Your task to perform on an android device: Search for "acer predator" on ebay, select the first entry, add it to the cart, then select checkout. Image 0: 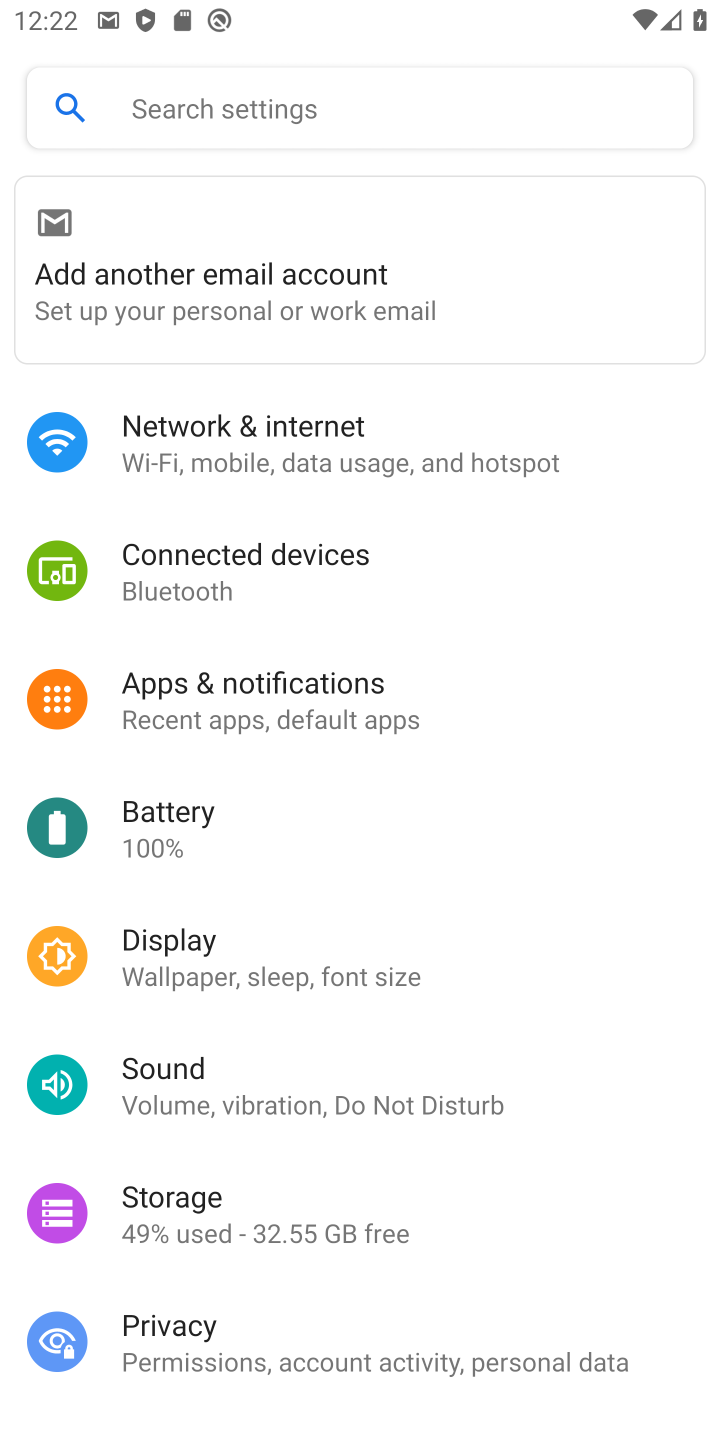
Step 0: press home button
Your task to perform on an android device: Search for "acer predator" on ebay, select the first entry, add it to the cart, then select checkout. Image 1: 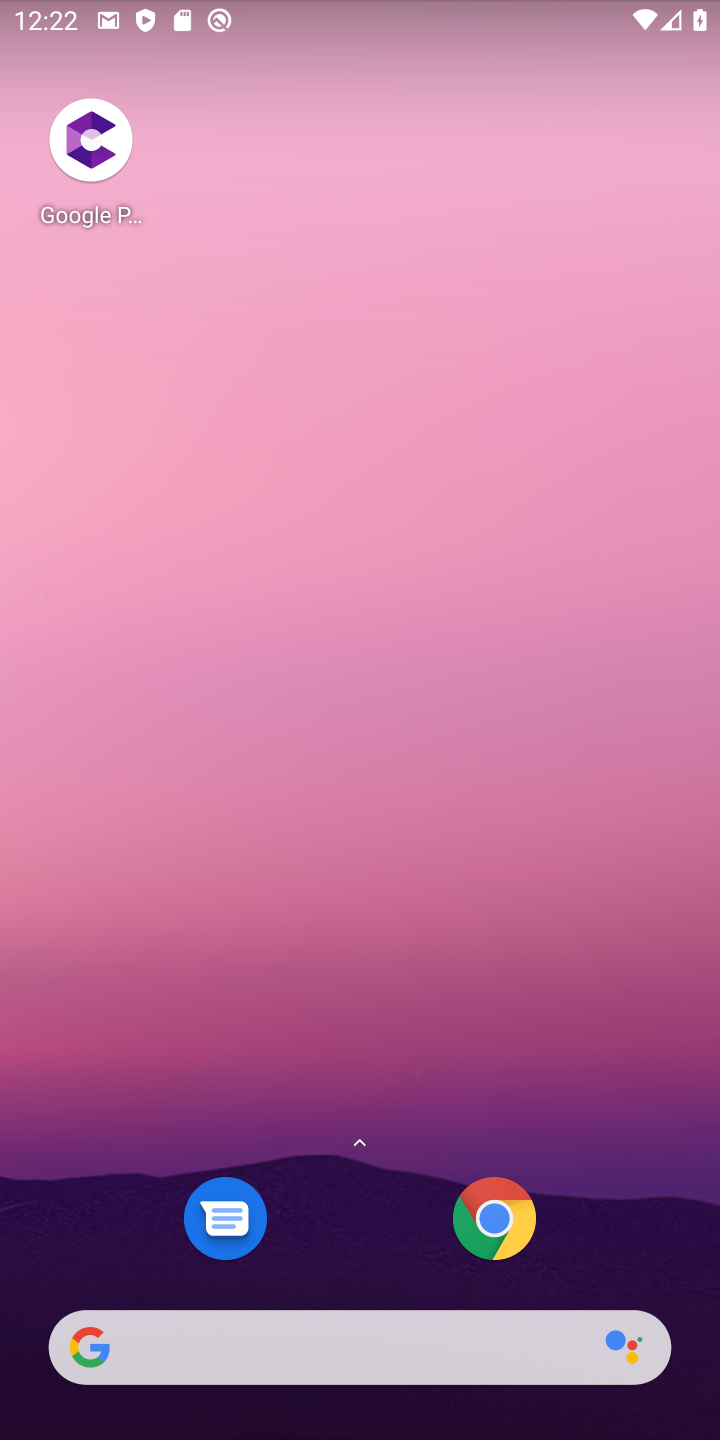
Step 1: drag from (361, 1245) to (364, 155)
Your task to perform on an android device: Search for "acer predator" on ebay, select the first entry, add it to the cart, then select checkout. Image 2: 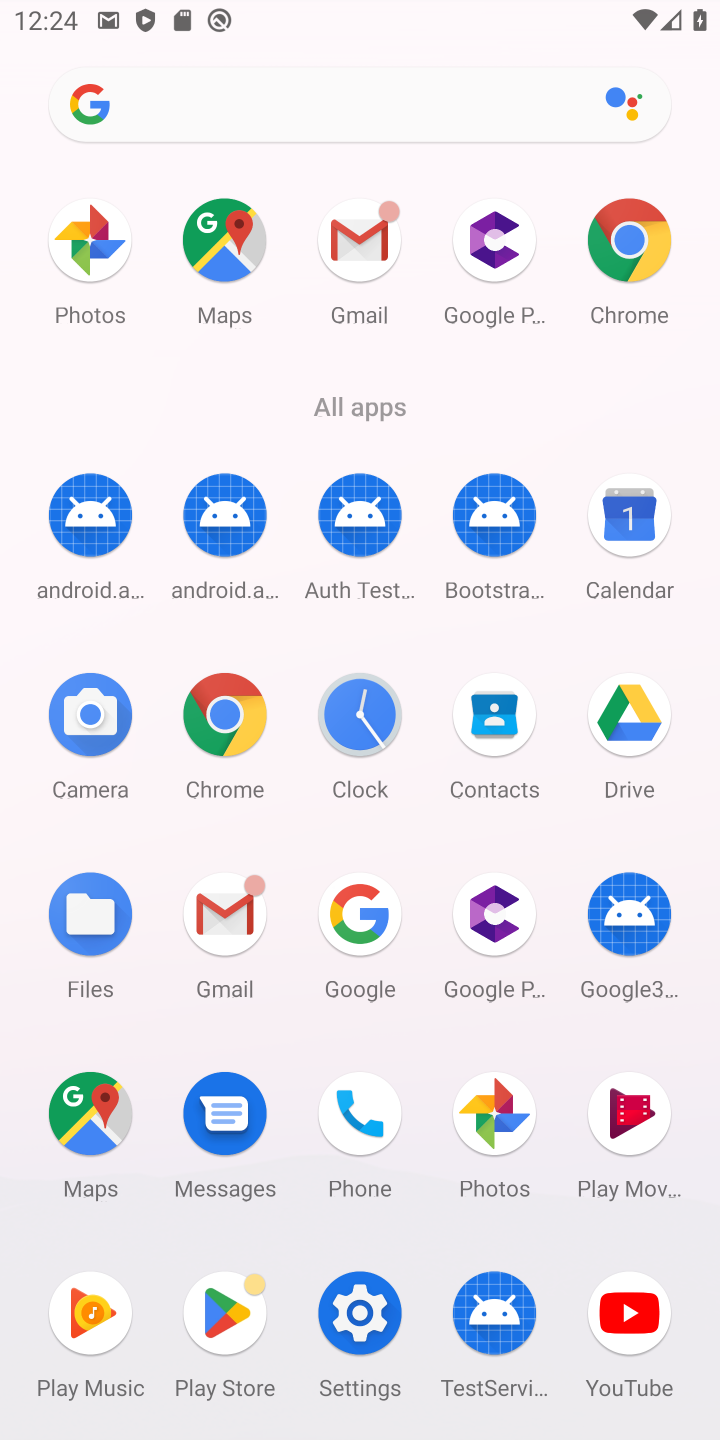
Step 2: click (200, 703)
Your task to perform on an android device: Search for "acer predator" on ebay, select the first entry, add it to the cart, then select checkout. Image 3: 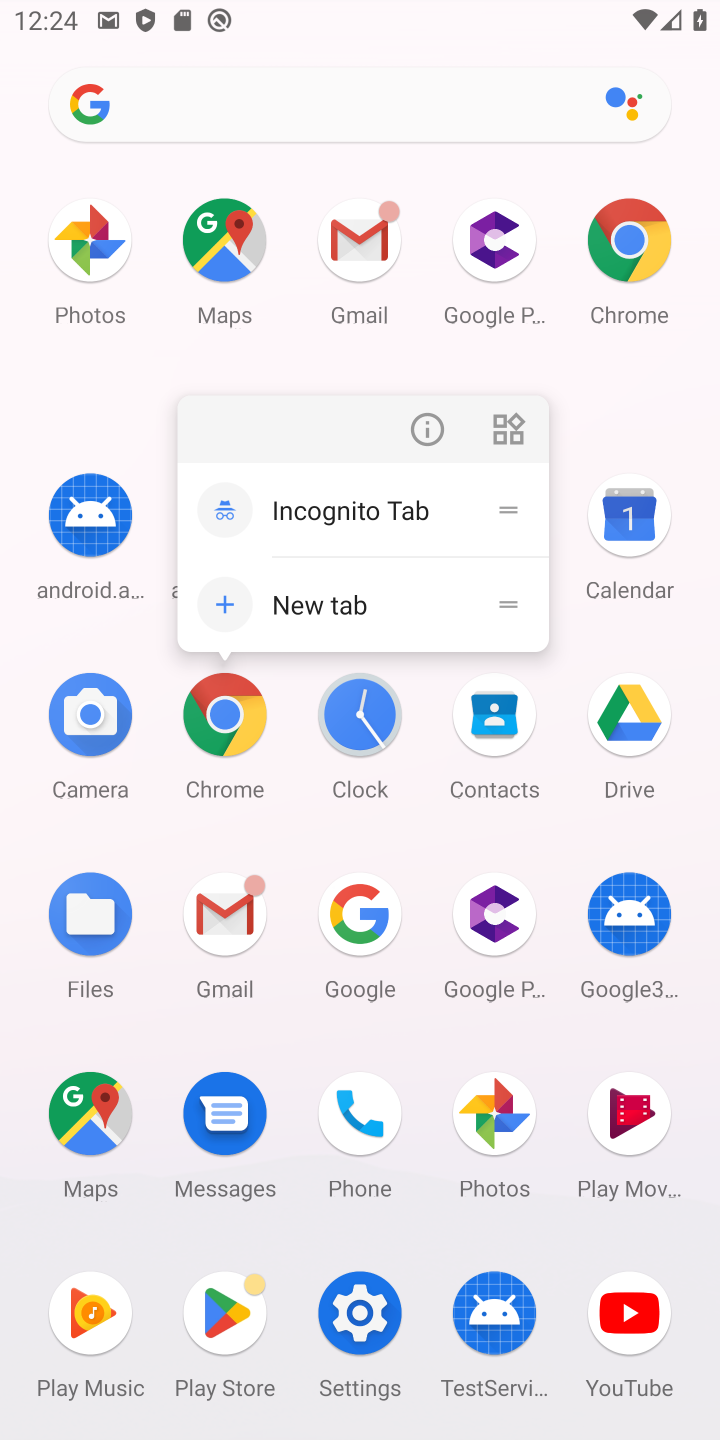
Step 3: click (221, 718)
Your task to perform on an android device: Search for "acer predator" on ebay, select the first entry, add it to the cart, then select checkout. Image 4: 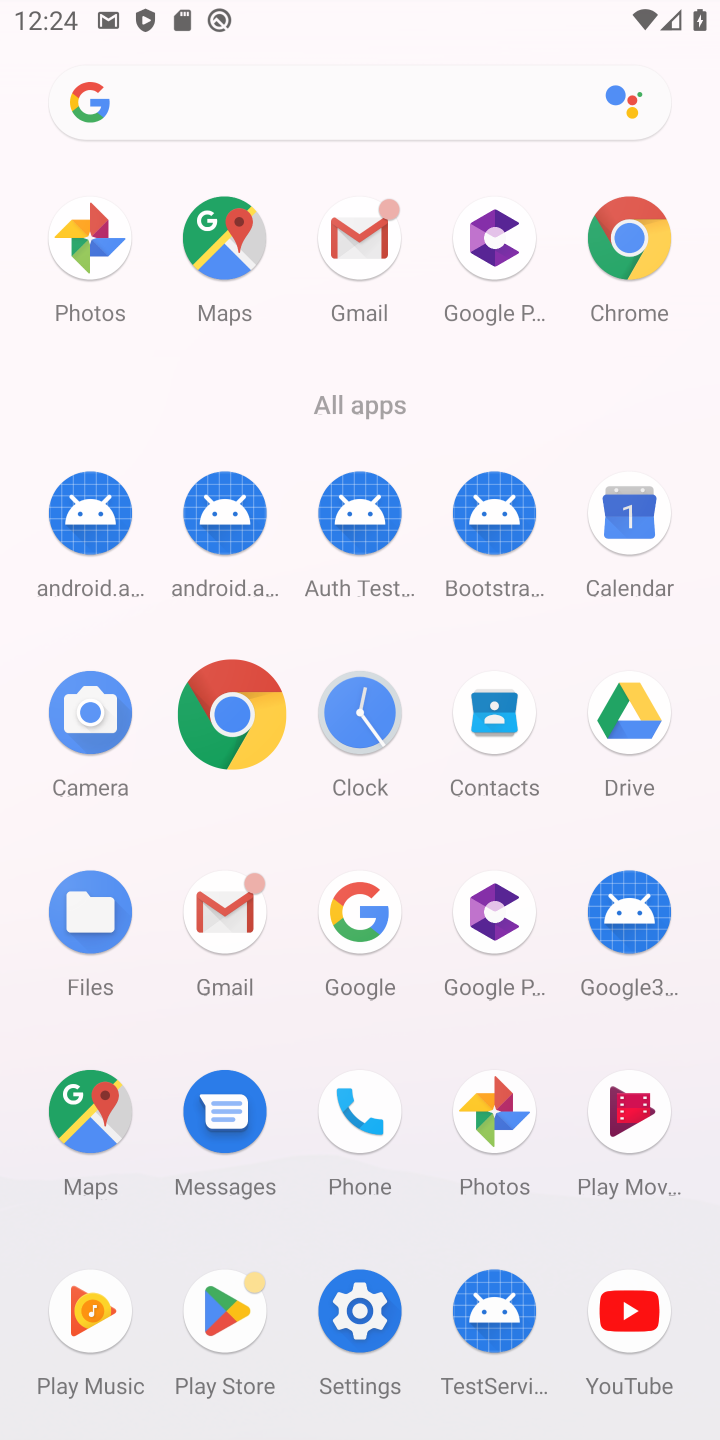
Step 4: click (221, 718)
Your task to perform on an android device: Search for "acer predator" on ebay, select the first entry, add it to the cart, then select checkout. Image 5: 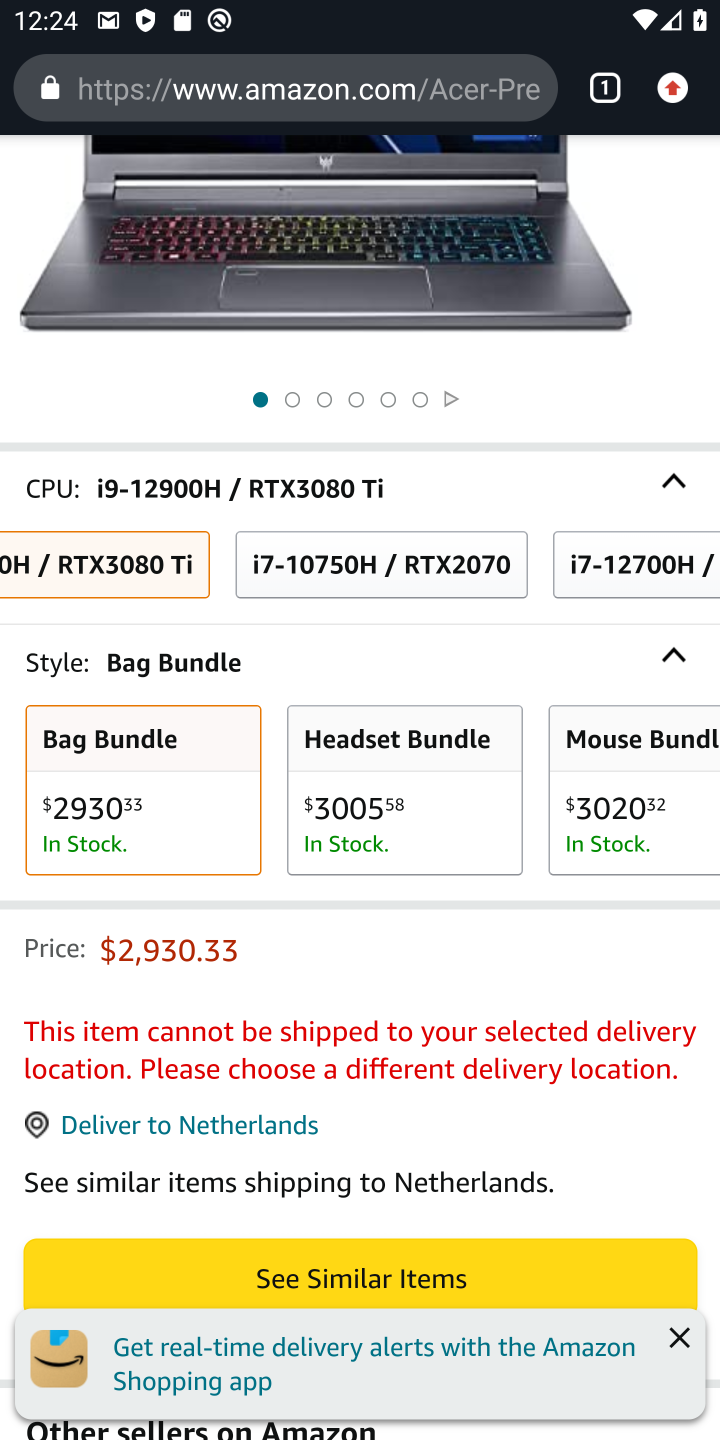
Step 5: click (237, 83)
Your task to perform on an android device: Search for "acer predator" on ebay, select the first entry, add it to the cart, then select checkout. Image 6: 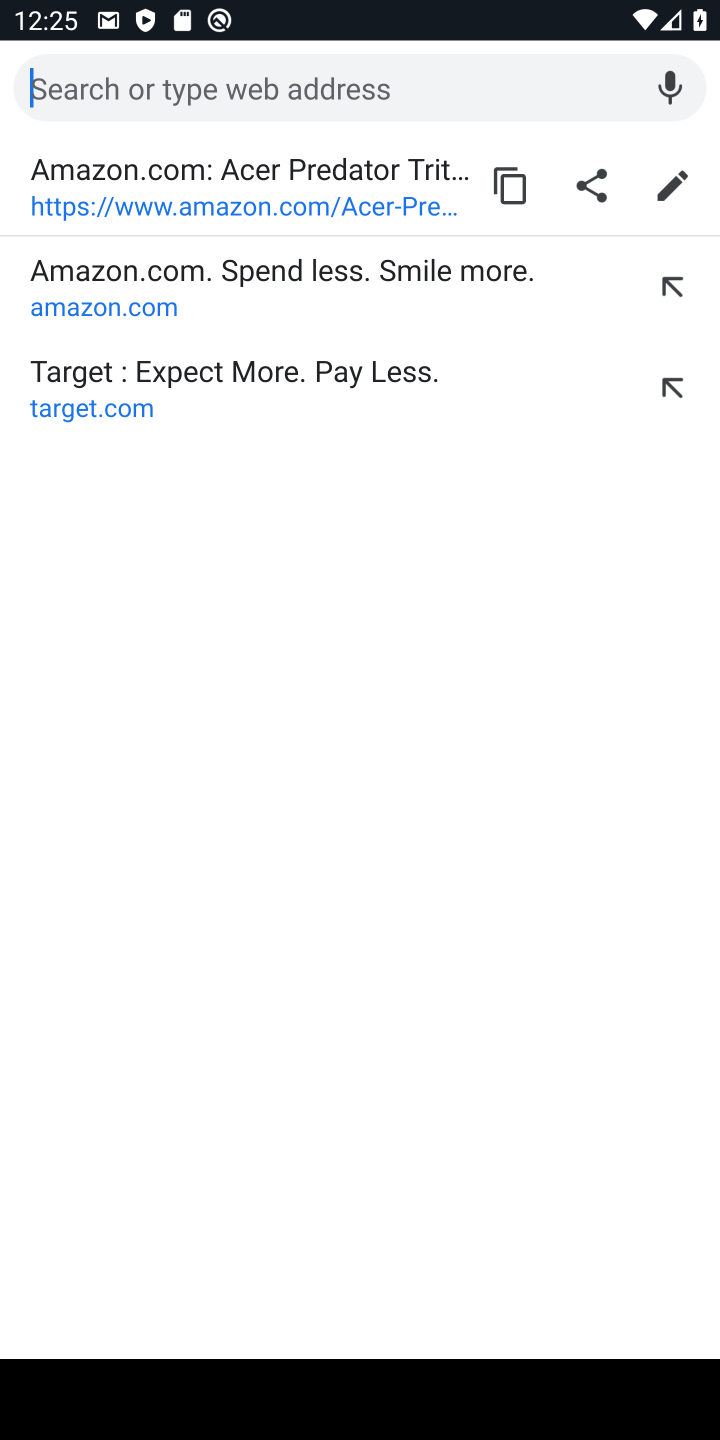
Step 6: type "ebay"
Your task to perform on an android device: Search for "acer predator" on ebay, select the first entry, add it to the cart, then select checkout. Image 7: 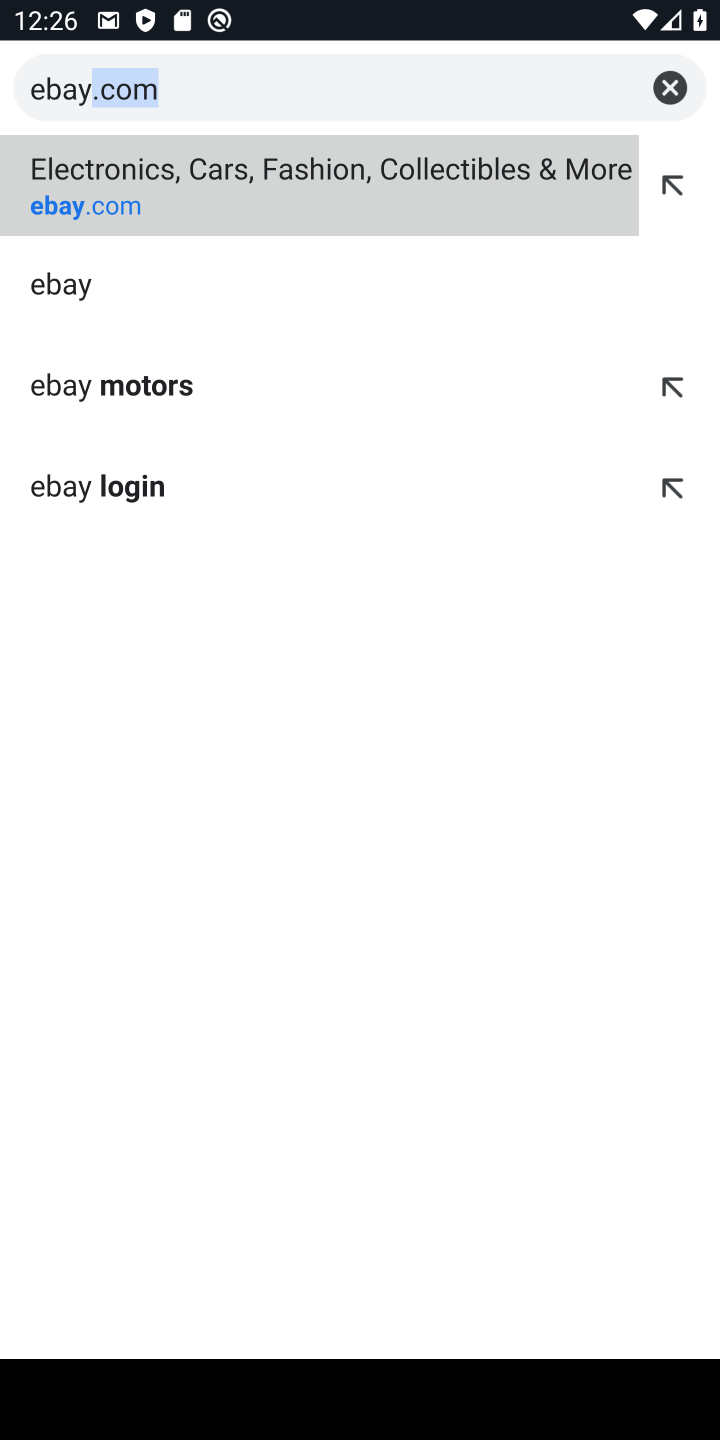
Step 7: click (119, 209)
Your task to perform on an android device: Search for "acer predator" on ebay, select the first entry, add it to the cart, then select checkout. Image 8: 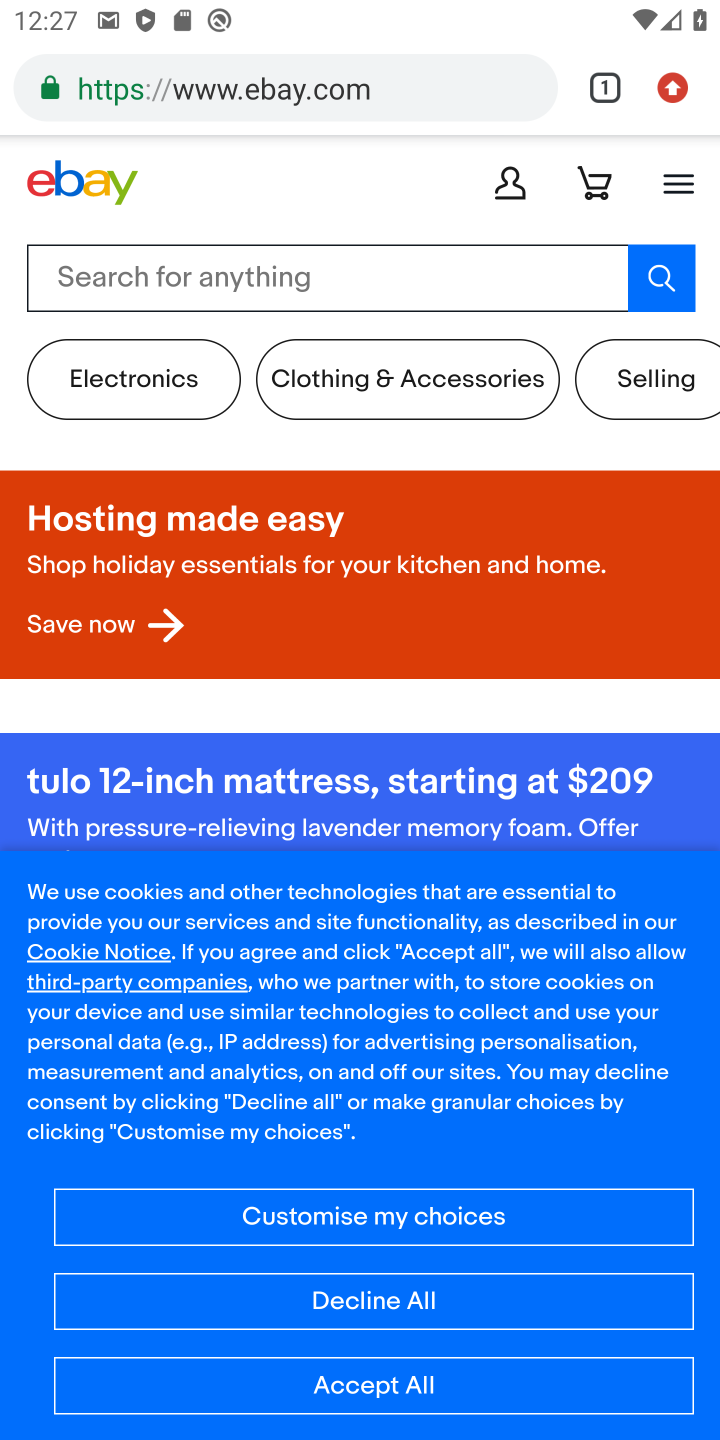
Step 8: click (309, 282)
Your task to perform on an android device: Search for "acer predator" on ebay, select the first entry, add it to the cart, then select checkout. Image 9: 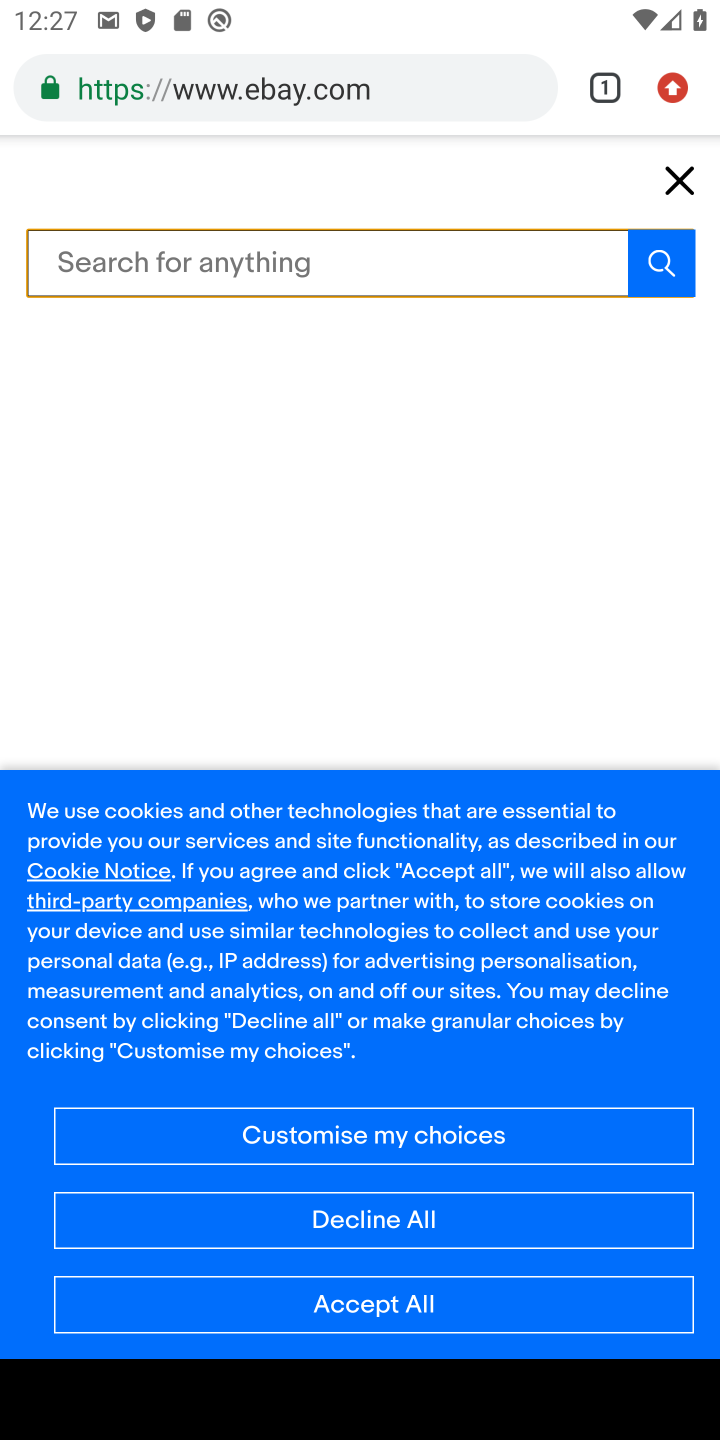
Step 9: type "acer predator"
Your task to perform on an android device: Search for "acer predator" on ebay, select the first entry, add it to the cart, then select checkout. Image 10: 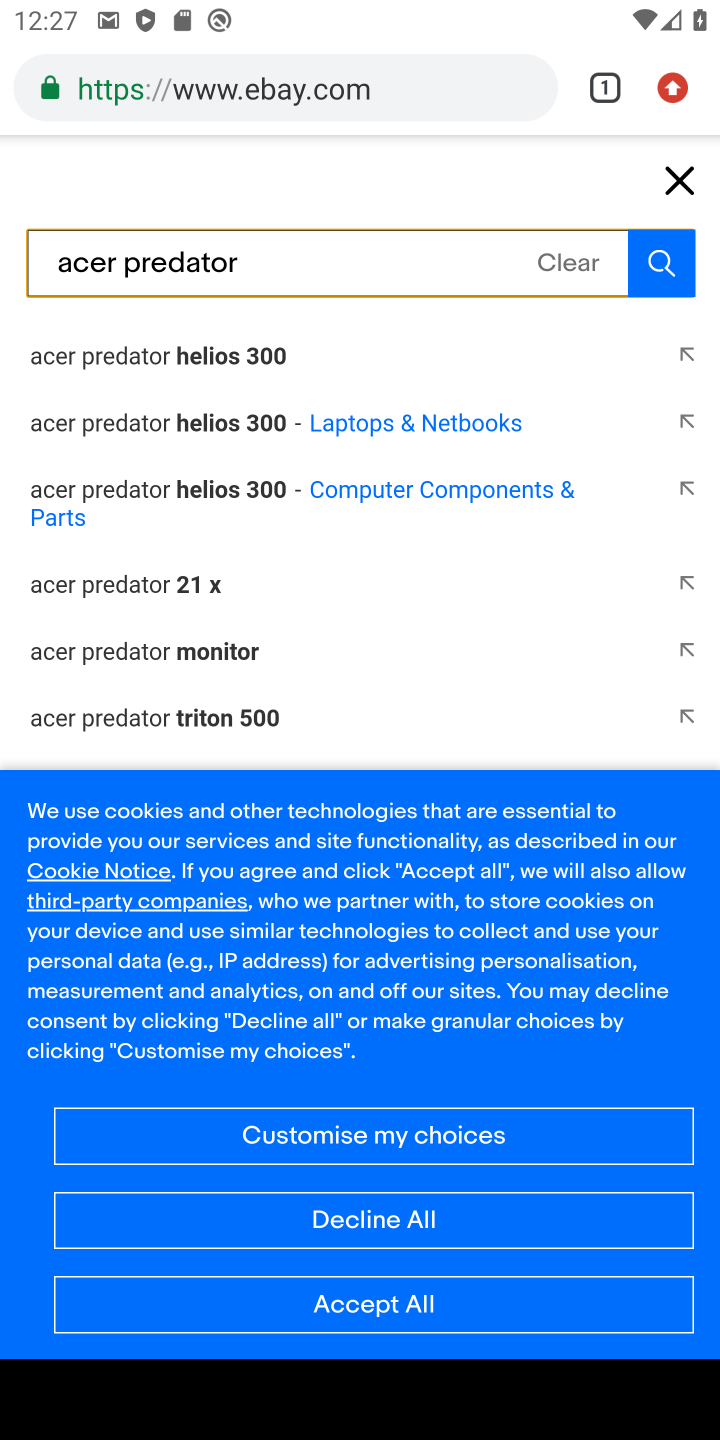
Step 10: click (666, 264)
Your task to perform on an android device: Search for "acer predator" on ebay, select the first entry, add it to the cart, then select checkout. Image 11: 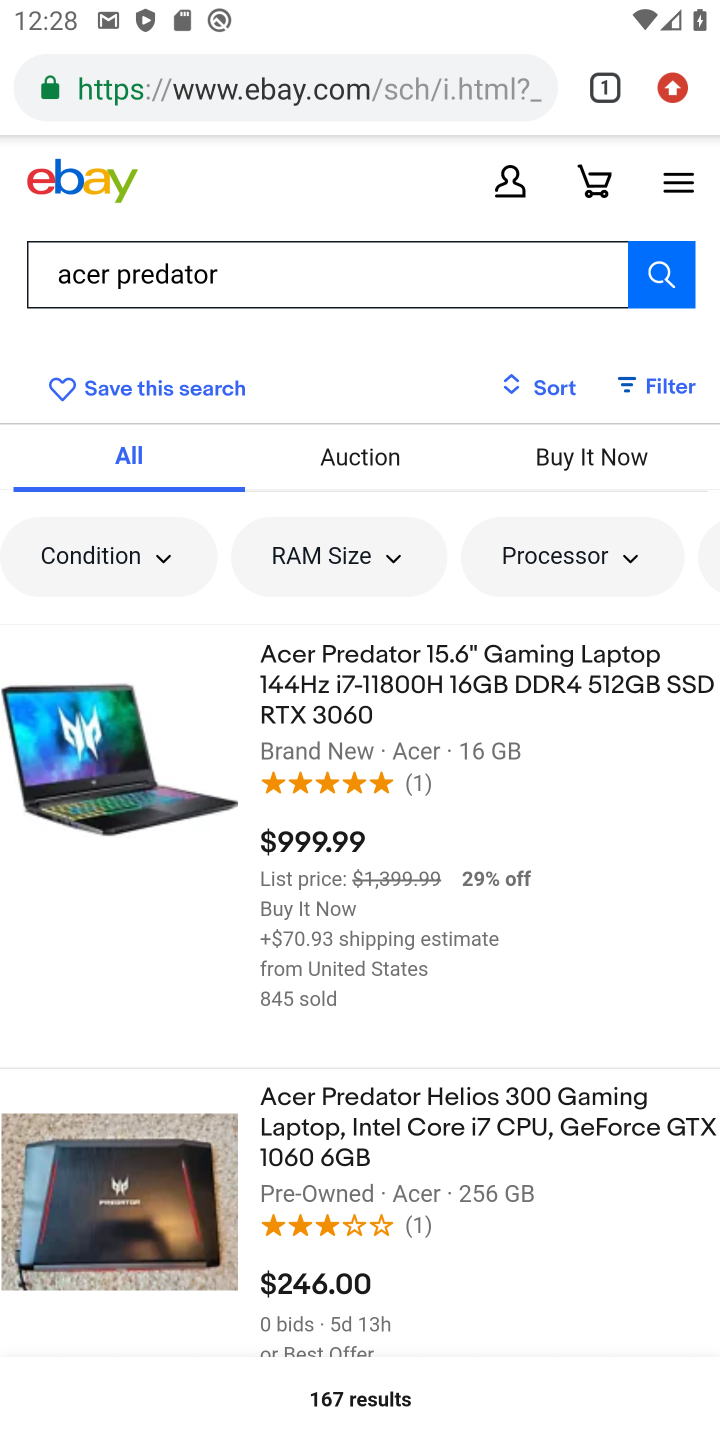
Step 11: click (75, 781)
Your task to perform on an android device: Search for "acer predator" on ebay, select the first entry, add it to the cart, then select checkout. Image 12: 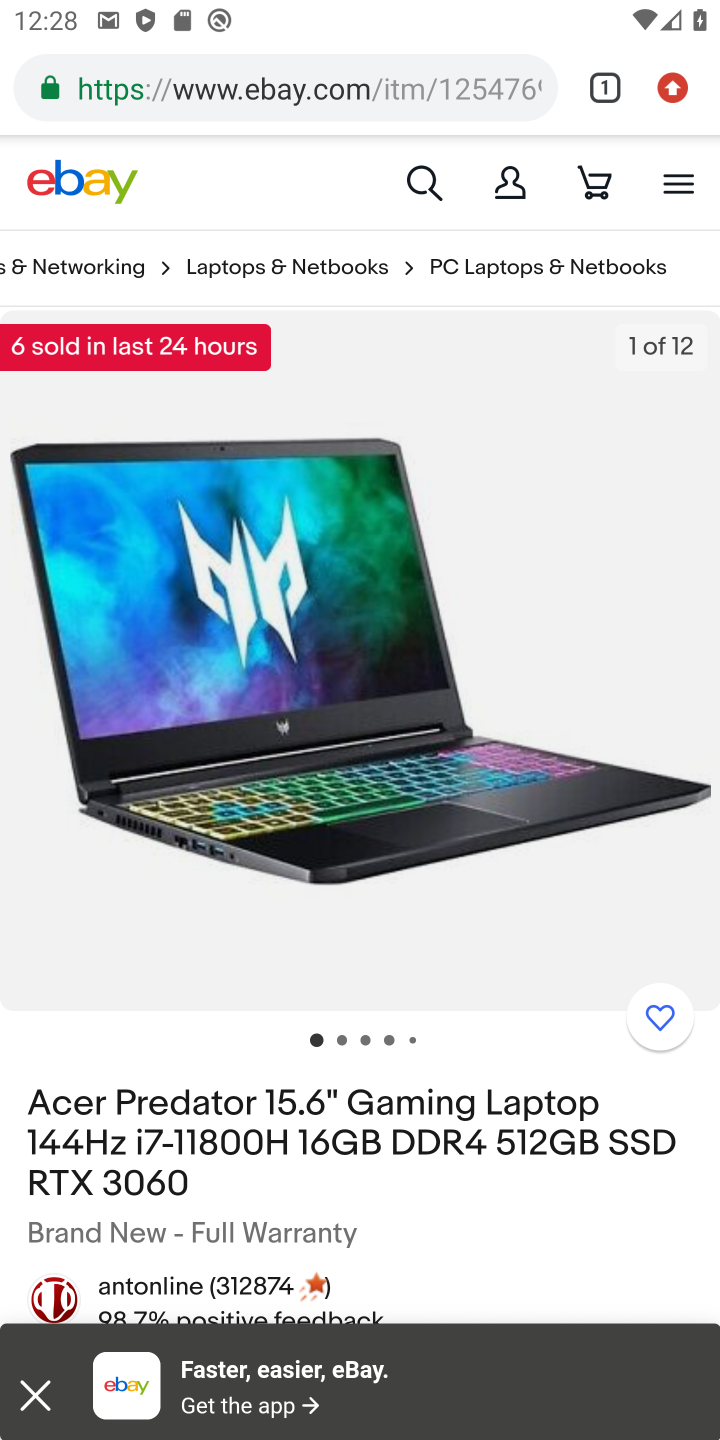
Step 12: drag from (335, 1237) to (201, 343)
Your task to perform on an android device: Search for "acer predator" on ebay, select the first entry, add it to the cart, then select checkout. Image 13: 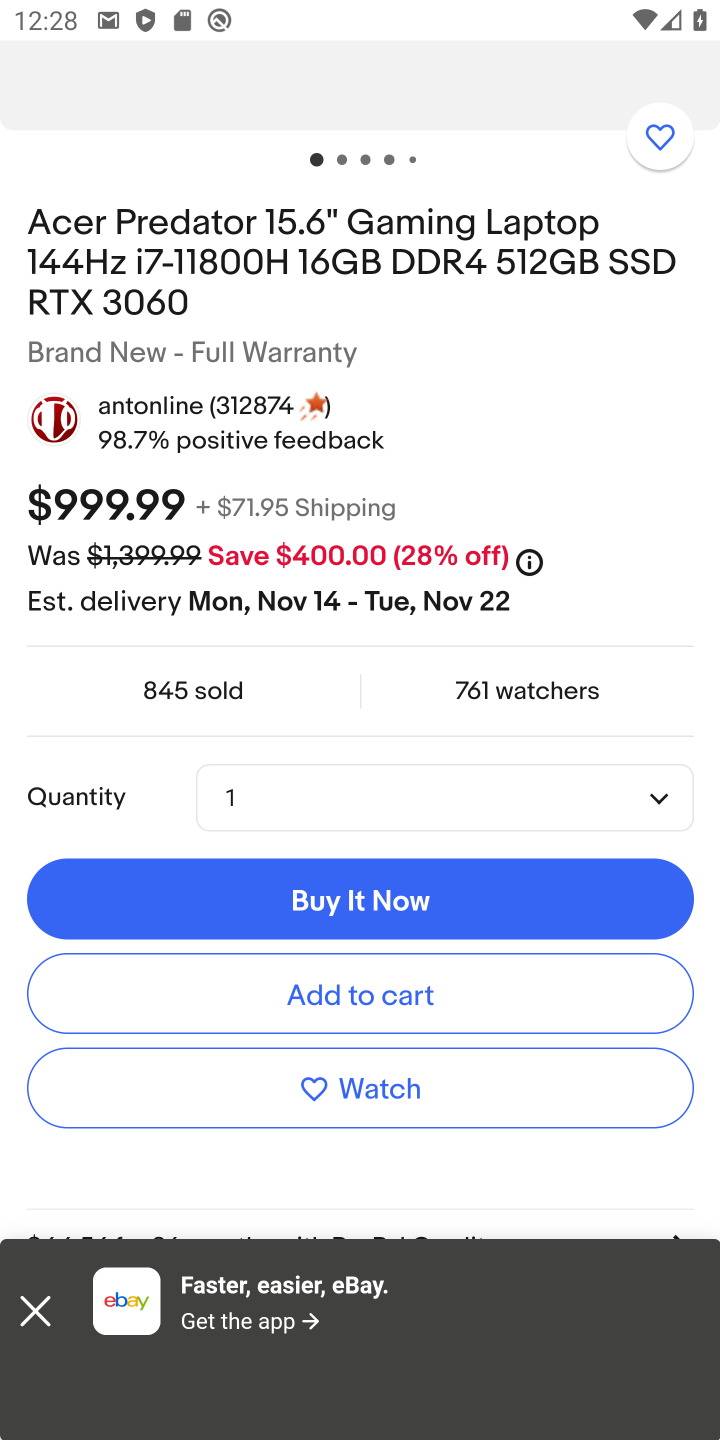
Step 13: click (290, 1001)
Your task to perform on an android device: Search for "acer predator" on ebay, select the first entry, add it to the cart, then select checkout. Image 14: 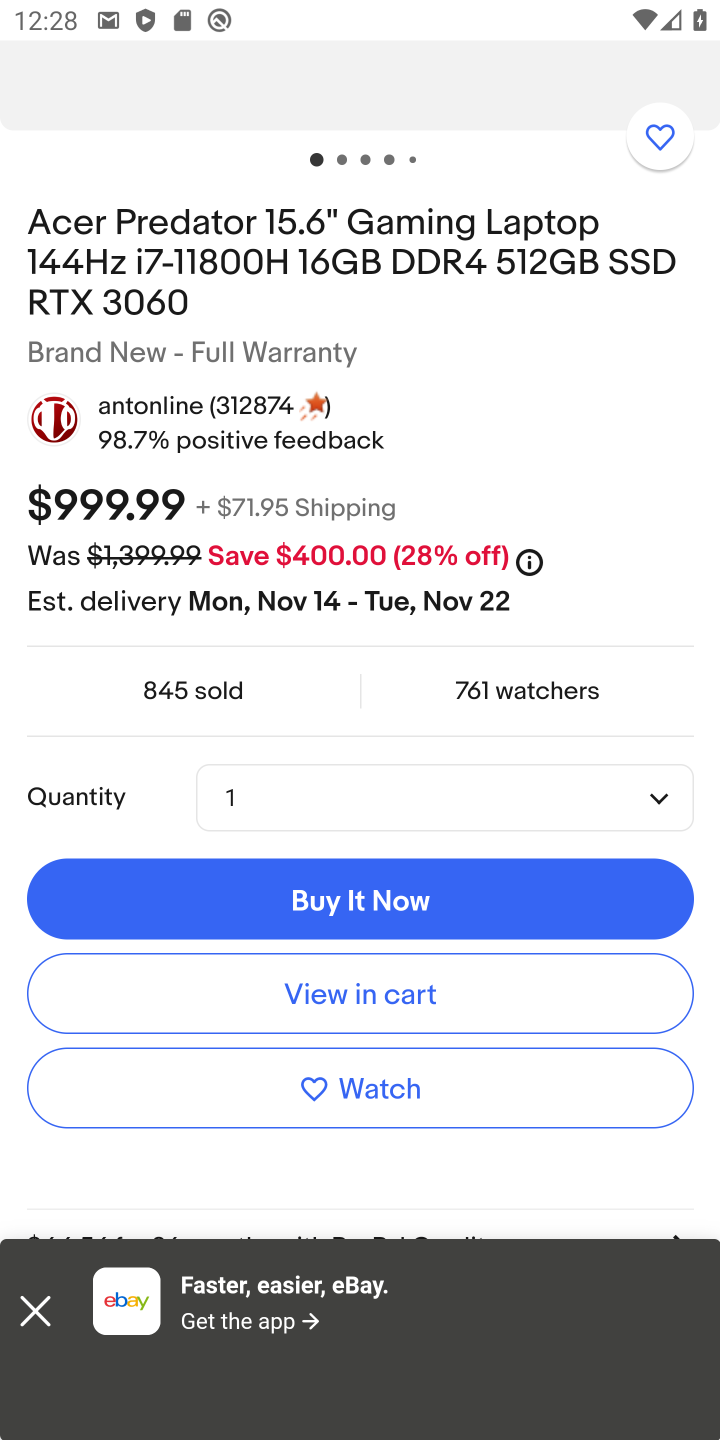
Step 14: task complete